Your task to perform on an android device: snooze an email in the gmail app Image 0: 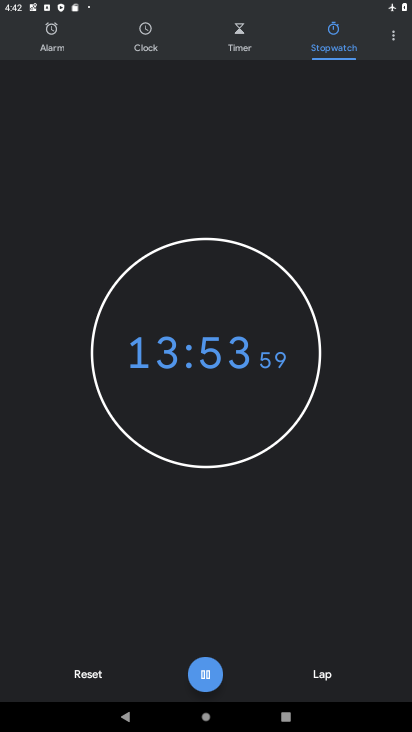
Step 0: press home button
Your task to perform on an android device: snooze an email in the gmail app Image 1: 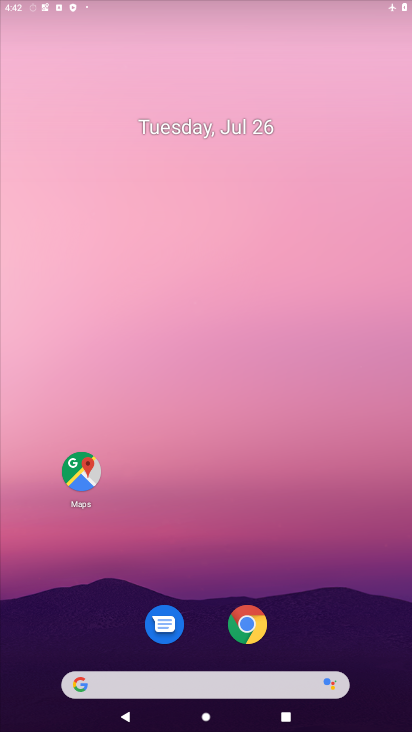
Step 1: drag from (238, 629) to (289, 0)
Your task to perform on an android device: snooze an email in the gmail app Image 2: 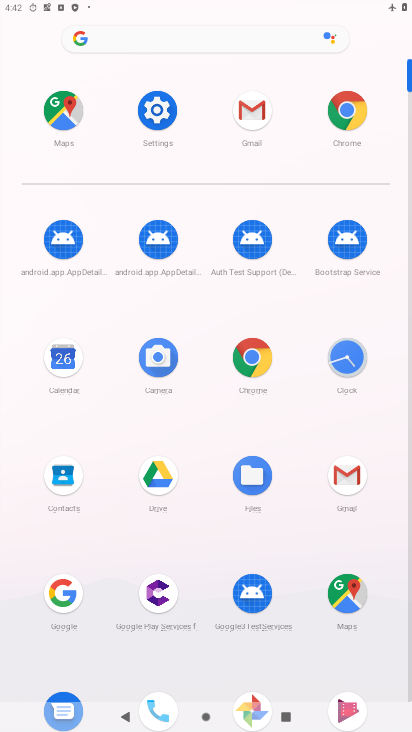
Step 2: click (350, 472)
Your task to perform on an android device: snooze an email in the gmail app Image 3: 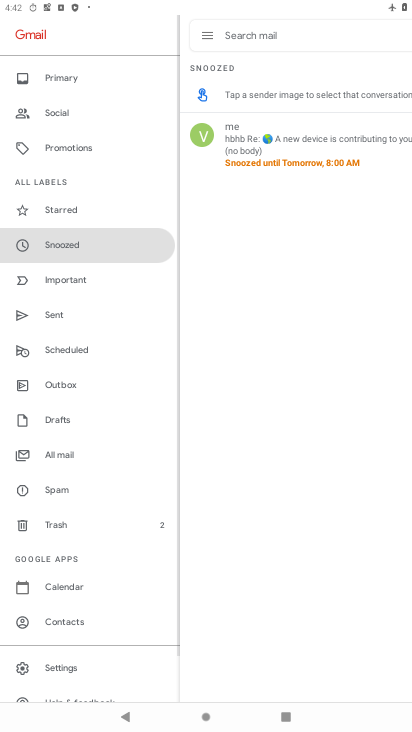
Step 3: click (108, 250)
Your task to perform on an android device: snooze an email in the gmail app Image 4: 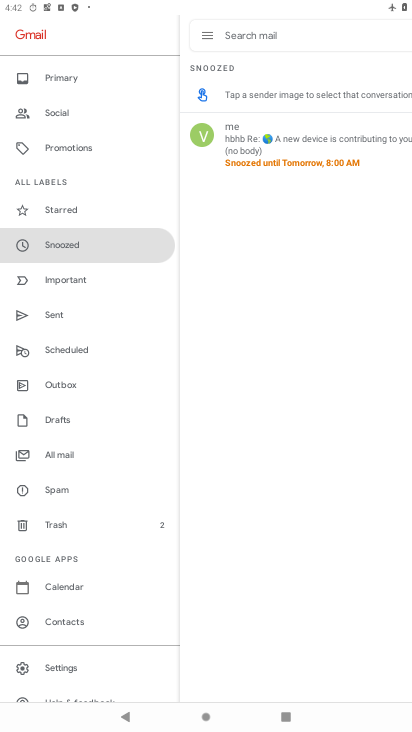
Step 4: task complete